Your task to perform on an android device: turn off airplane mode Image 0: 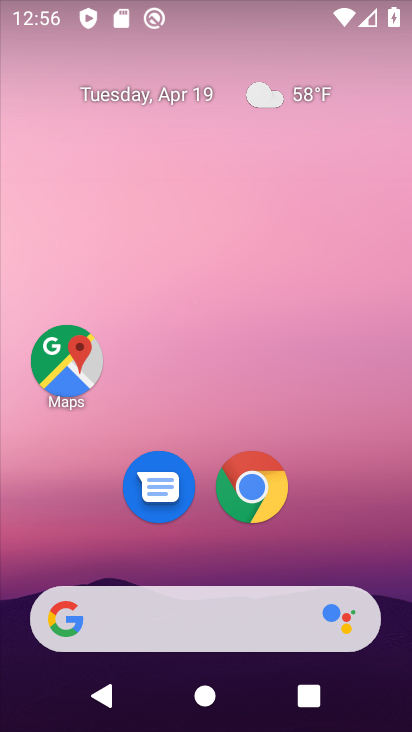
Step 0: drag from (205, 687) to (205, 79)
Your task to perform on an android device: turn off airplane mode Image 1: 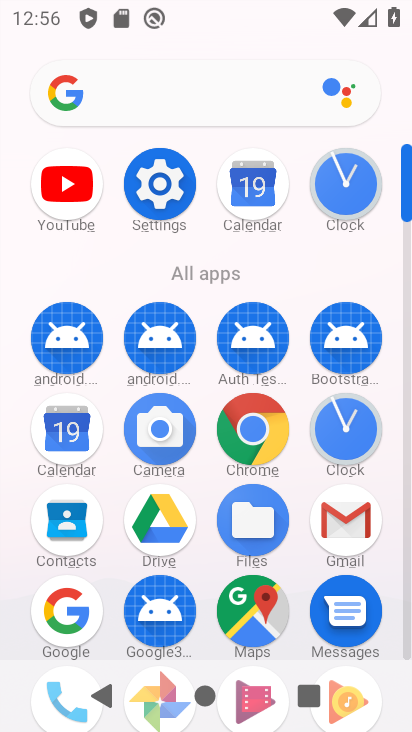
Step 1: click (161, 186)
Your task to perform on an android device: turn off airplane mode Image 2: 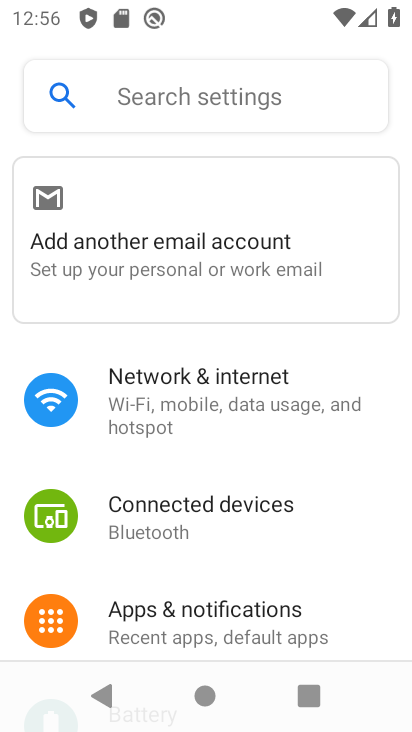
Step 2: click (200, 391)
Your task to perform on an android device: turn off airplane mode Image 3: 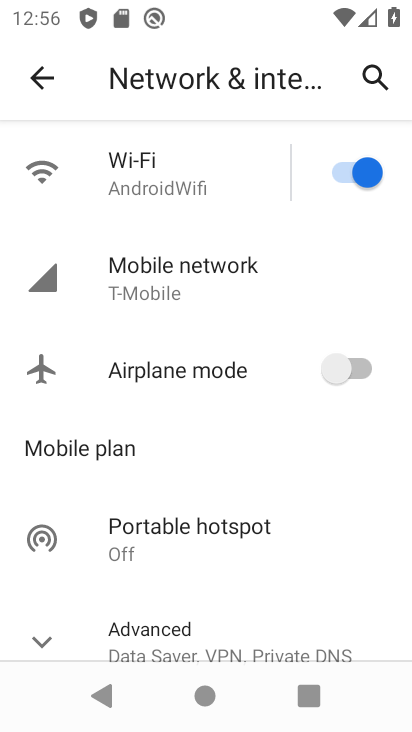
Step 3: task complete